Your task to perform on an android device: Set the phone to "Do not disturb". Image 0: 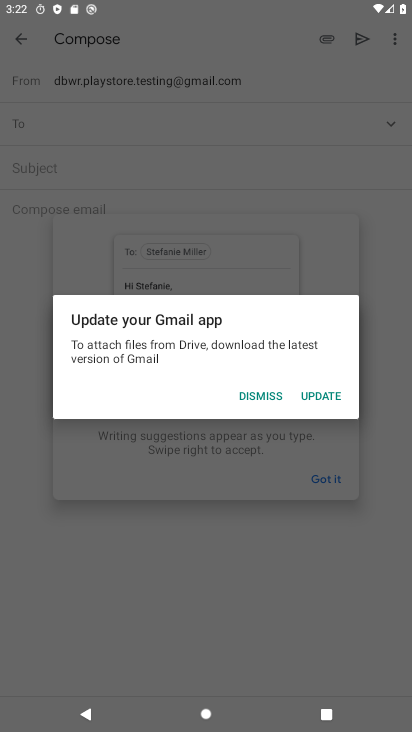
Step 0: press home button
Your task to perform on an android device: Set the phone to "Do not disturb". Image 1: 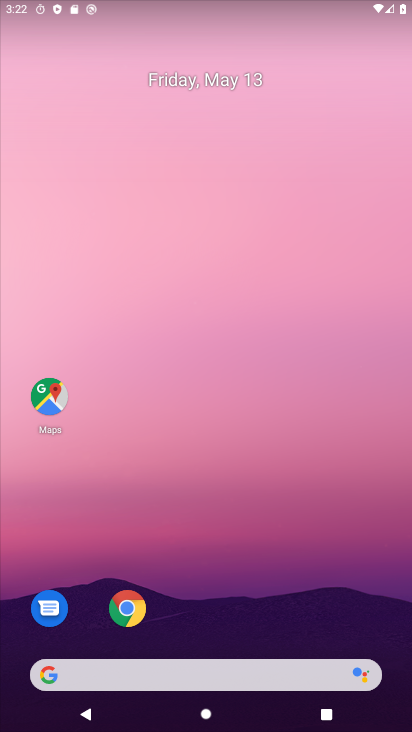
Step 1: drag from (273, 3) to (255, 728)
Your task to perform on an android device: Set the phone to "Do not disturb". Image 2: 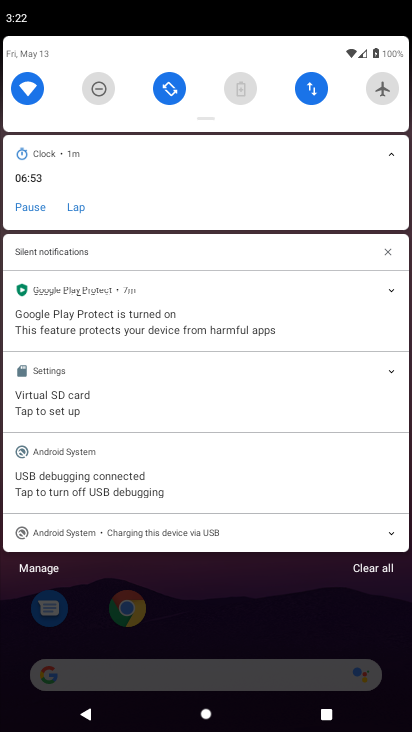
Step 2: drag from (207, 77) to (162, 730)
Your task to perform on an android device: Set the phone to "Do not disturb". Image 3: 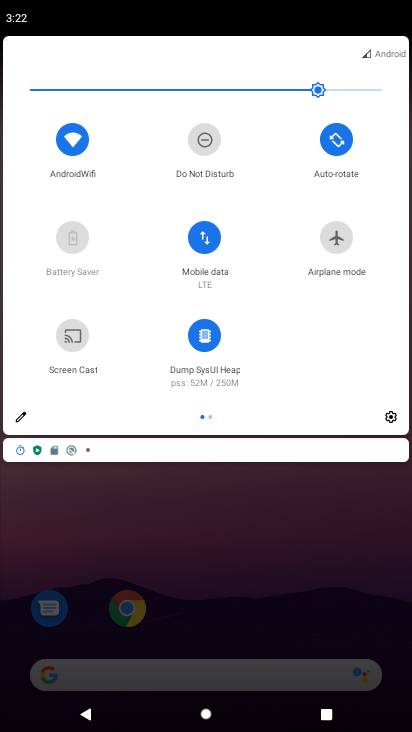
Step 3: click (205, 131)
Your task to perform on an android device: Set the phone to "Do not disturb". Image 4: 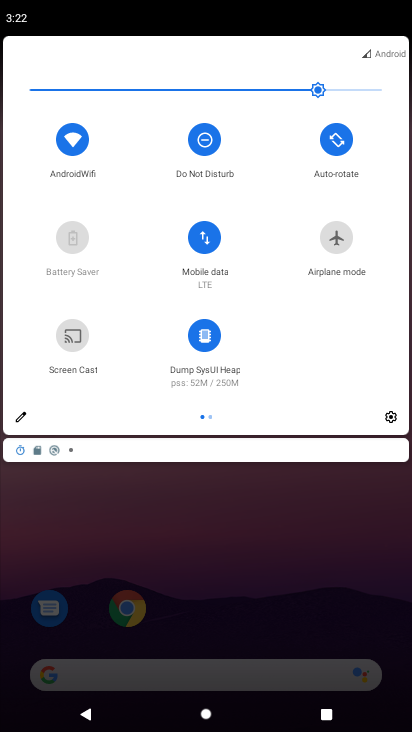
Step 4: task complete